Your task to perform on an android device: Open notification settings Image 0: 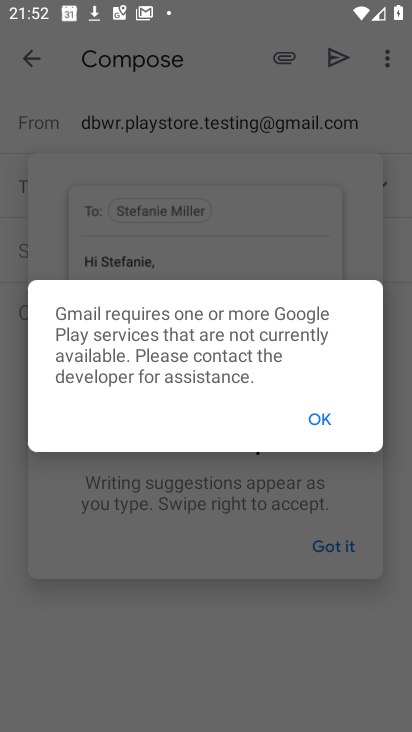
Step 0: press home button
Your task to perform on an android device: Open notification settings Image 1: 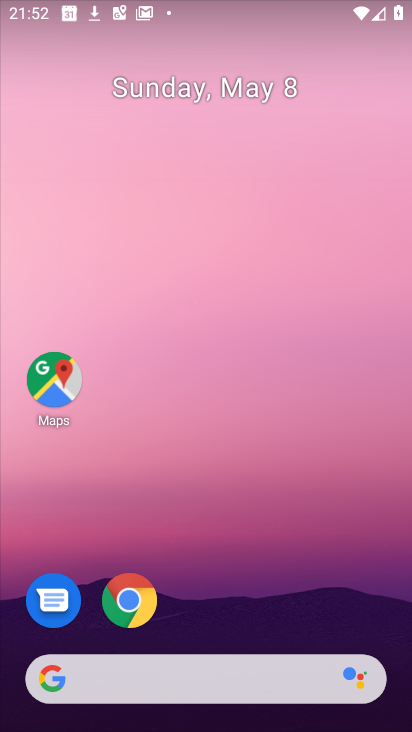
Step 1: drag from (257, 709) to (310, 304)
Your task to perform on an android device: Open notification settings Image 2: 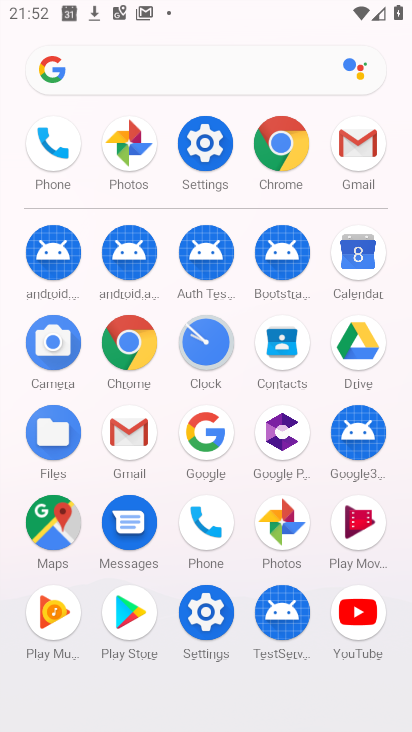
Step 2: click (211, 159)
Your task to perform on an android device: Open notification settings Image 3: 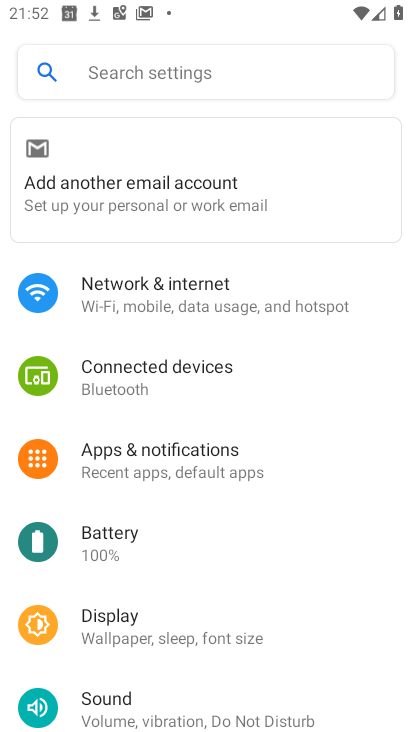
Step 3: click (150, 65)
Your task to perform on an android device: Open notification settings Image 4: 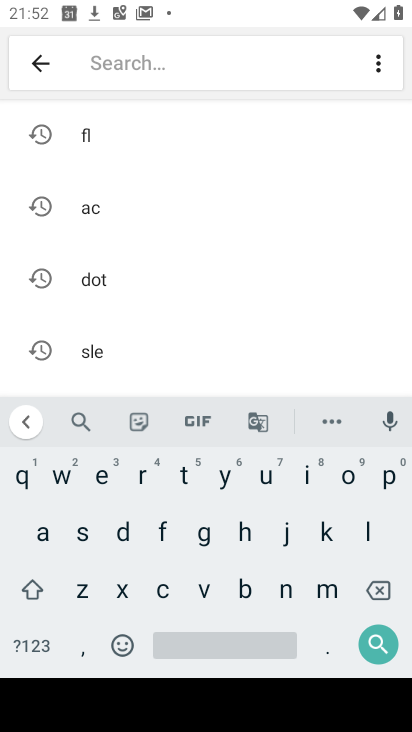
Step 4: click (283, 591)
Your task to perform on an android device: Open notification settings Image 5: 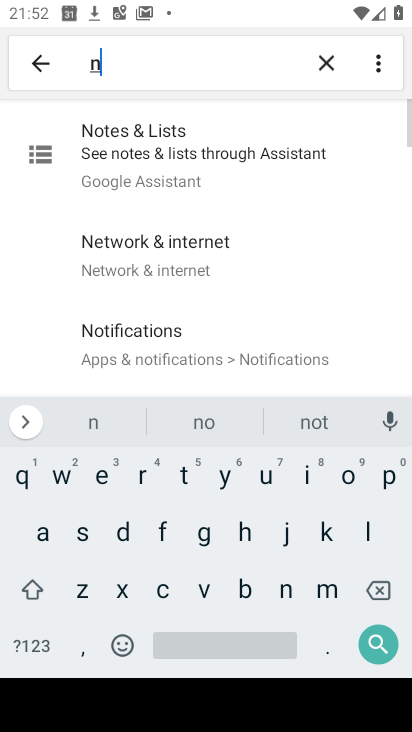
Step 5: click (346, 480)
Your task to perform on an android device: Open notification settings Image 6: 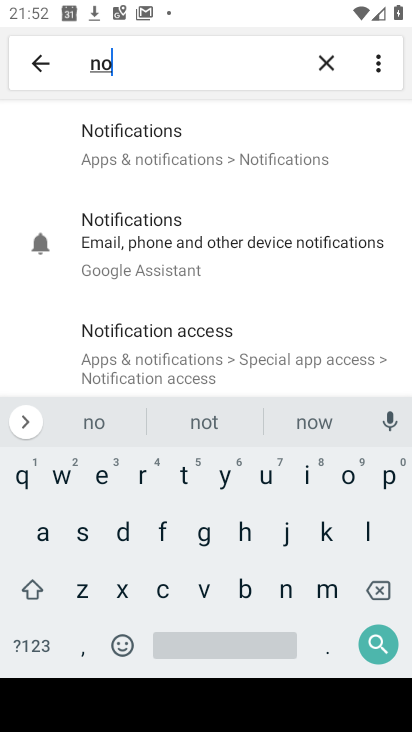
Step 6: click (162, 138)
Your task to perform on an android device: Open notification settings Image 7: 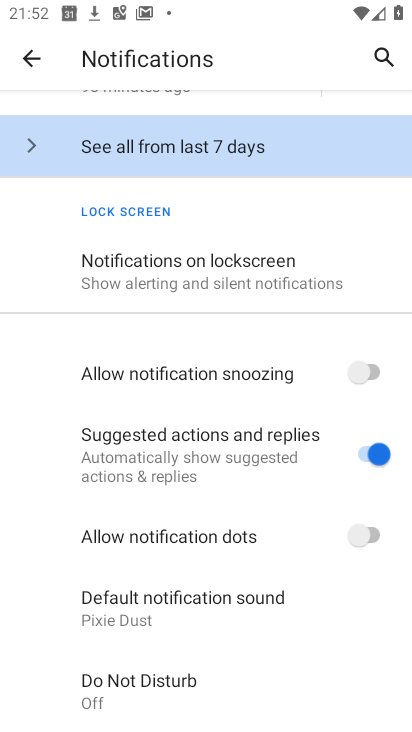
Step 7: click (144, 261)
Your task to perform on an android device: Open notification settings Image 8: 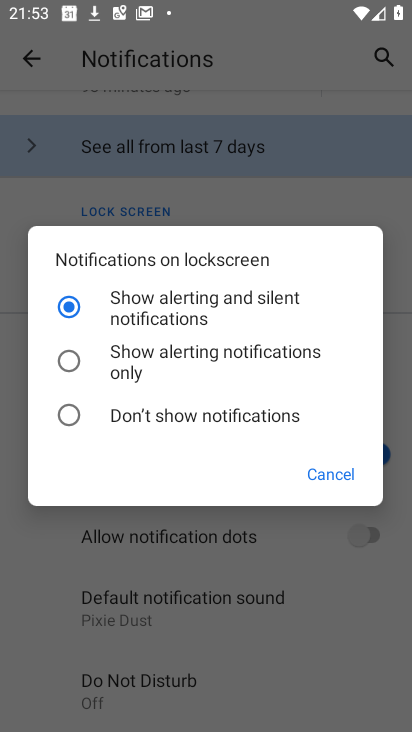
Step 8: task complete